Your task to perform on an android device: What's the weather? Image 0: 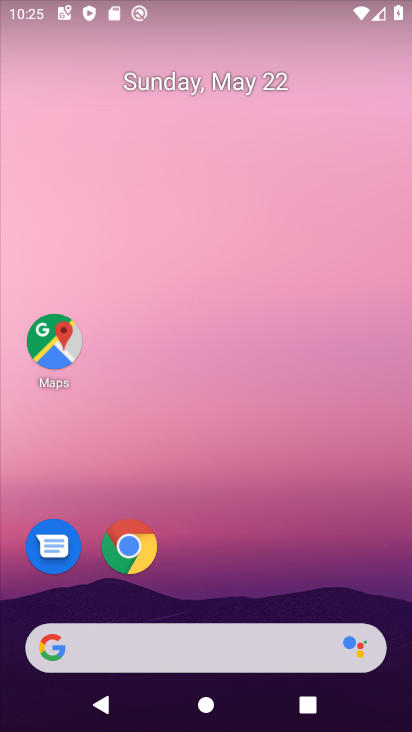
Step 0: click (210, 658)
Your task to perform on an android device: What's the weather? Image 1: 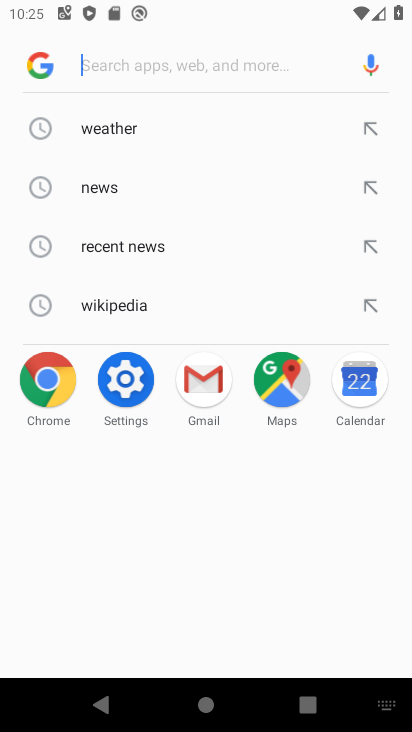
Step 1: click (142, 130)
Your task to perform on an android device: What's the weather? Image 2: 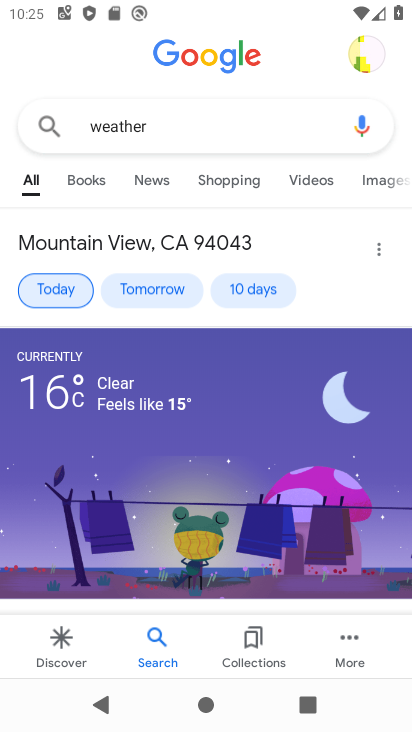
Step 2: task complete